Your task to perform on an android device: open the mobile data screen to see how much data has been used Image 0: 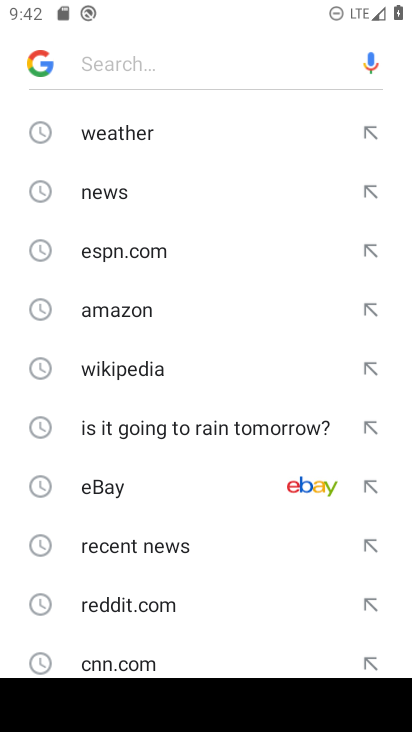
Step 0: press home button
Your task to perform on an android device: open the mobile data screen to see how much data has been used Image 1: 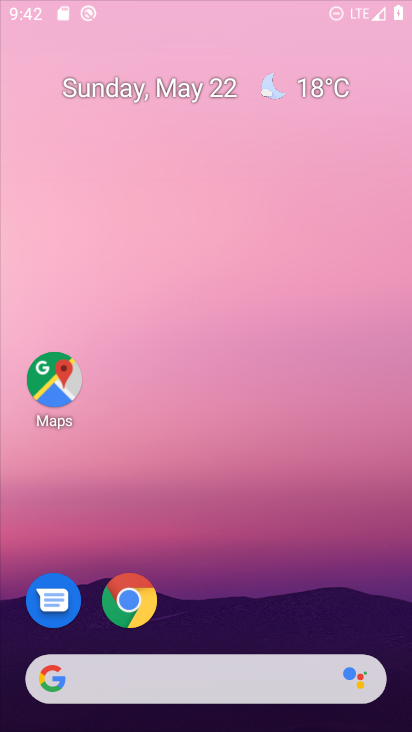
Step 1: drag from (375, 615) to (280, 68)
Your task to perform on an android device: open the mobile data screen to see how much data has been used Image 2: 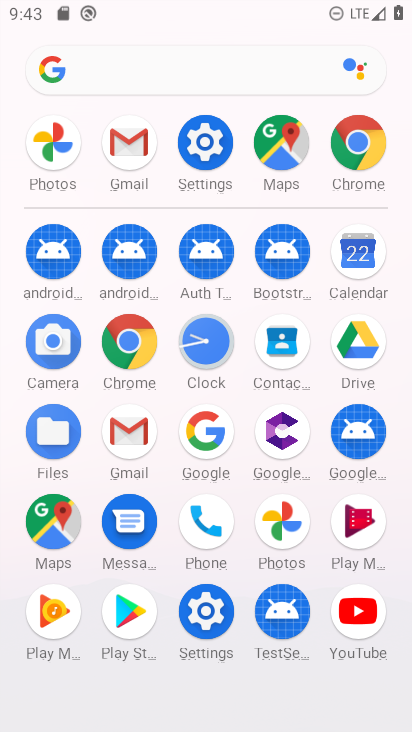
Step 2: click (201, 160)
Your task to perform on an android device: open the mobile data screen to see how much data has been used Image 3: 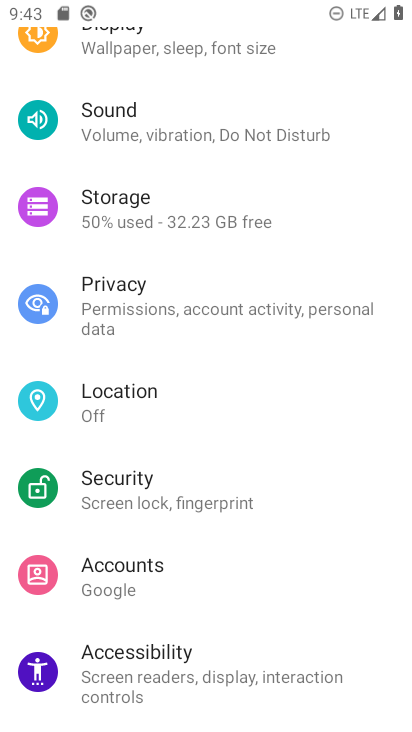
Step 3: drag from (201, 160) to (232, 620)
Your task to perform on an android device: open the mobile data screen to see how much data has been used Image 4: 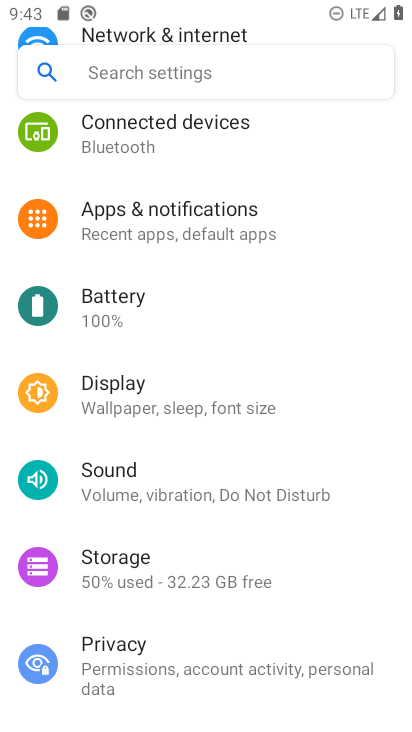
Step 4: drag from (222, 159) to (243, 586)
Your task to perform on an android device: open the mobile data screen to see how much data has been used Image 5: 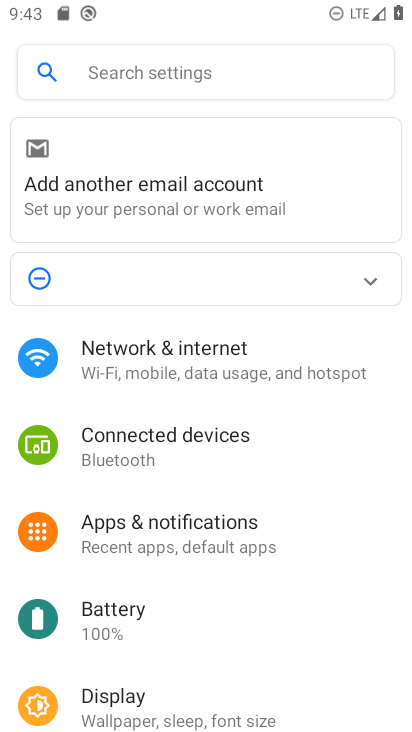
Step 5: click (207, 363)
Your task to perform on an android device: open the mobile data screen to see how much data has been used Image 6: 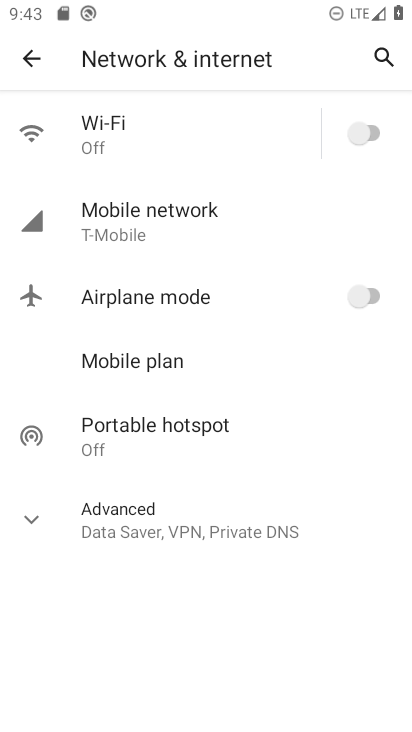
Step 6: click (191, 242)
Your task to perform on an android device: open the mobile data screen to see how much data has been used Image 7: 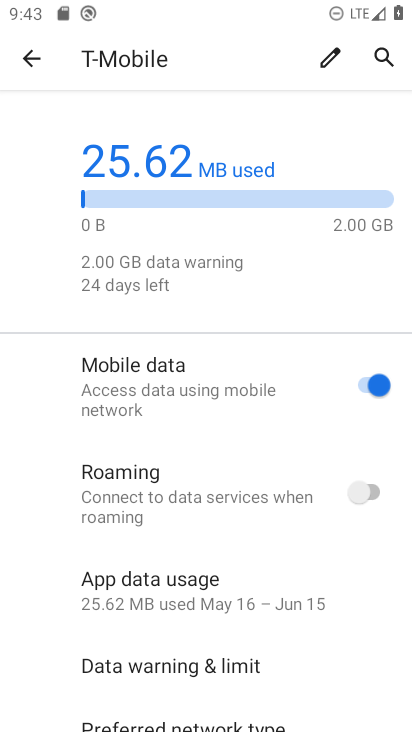
Step 7: click (199, 581)
Your task to perform on an android device: open the mobile data screen to see how much data has been used Image 8: 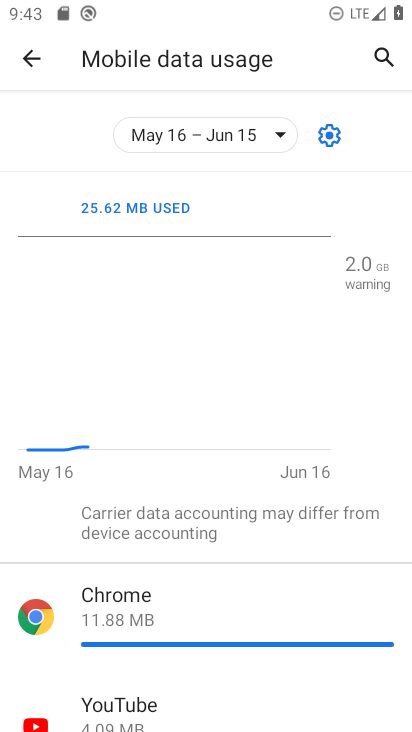
Step 8: task complete